Your task to perform on an android device: find which apps use the phone's location Image 0: 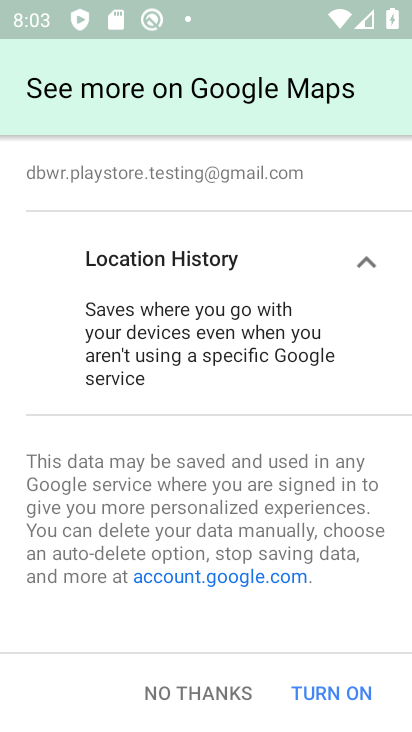
Step 0: click (376, 565)
Your task to perform on an android device: find which apps use the phone's location Image 1: 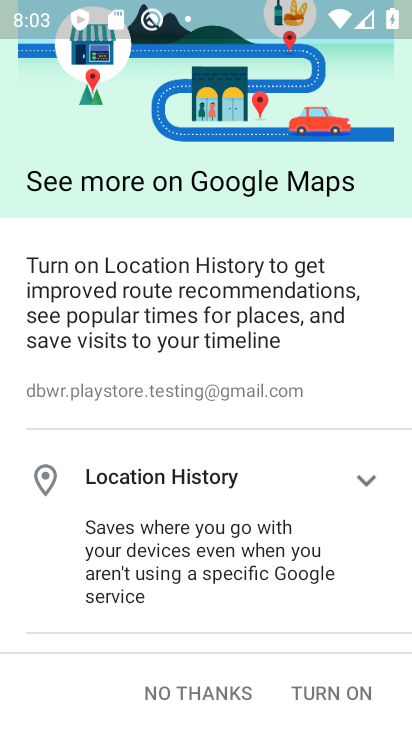
Step 1: press home button
Your task to perform on an android device: find which apps use the phone's location Image 2: 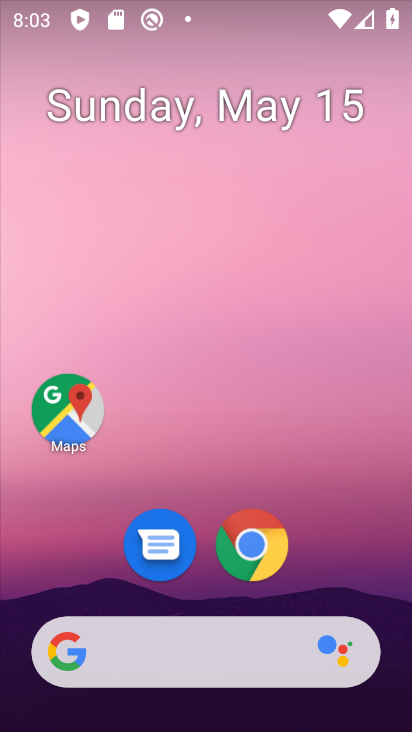
Step 2: drag from (373, 560) to (375, 94)
Your task to perform on an android device: find which apps use the phone's location Image 3: 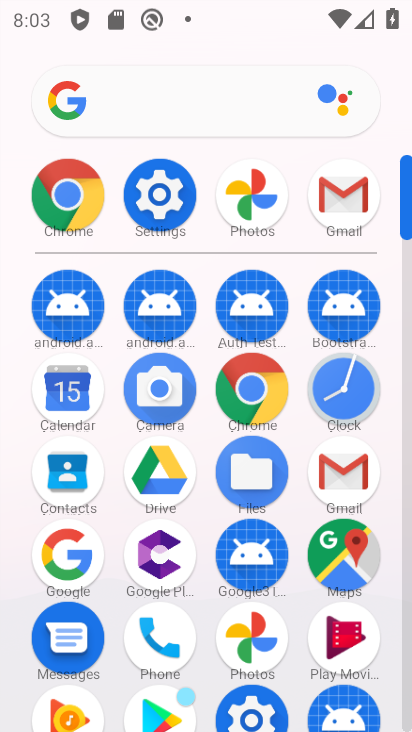
Step 3: click (176, 206)
Your task to perform on an android device: find which apps use the phone's location Image 4: 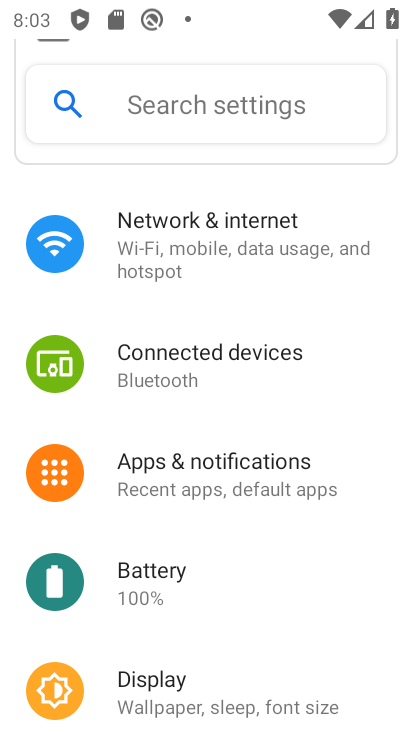
Step 4: drag from (362, 603) to (382, 393)
Your task to perform on an android device: find which apps use the phone's location Image 5: 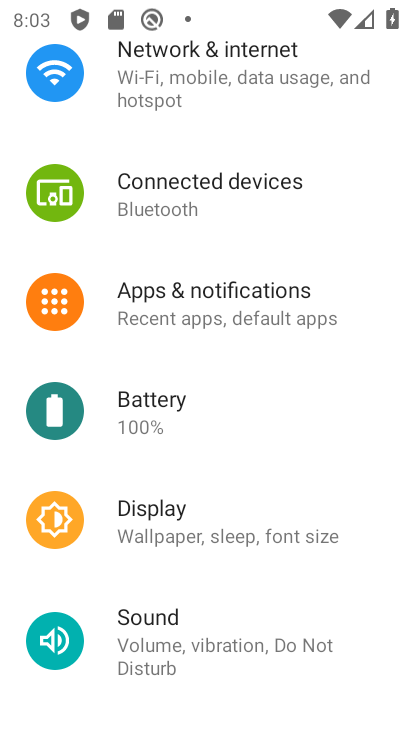
Step 5: drag from (360, 652) to (366, 447)
Your task to perform on an android device: find which apps use the phone's location Image 6: 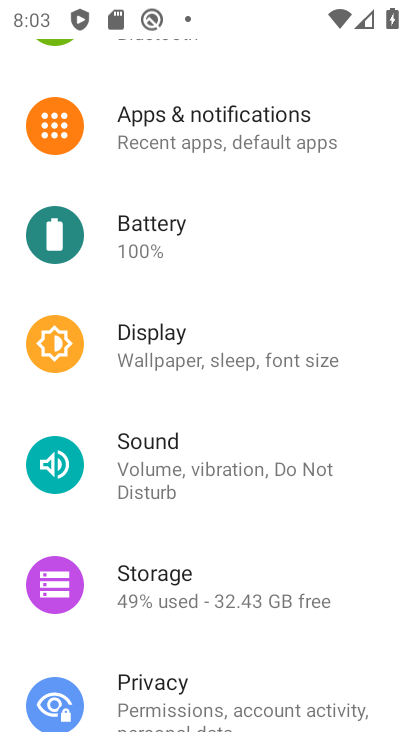
Step 6: drag from (363, 648) to (362, 419)
Your task to perform on an android device: find which apps use the phone's location Image 7: 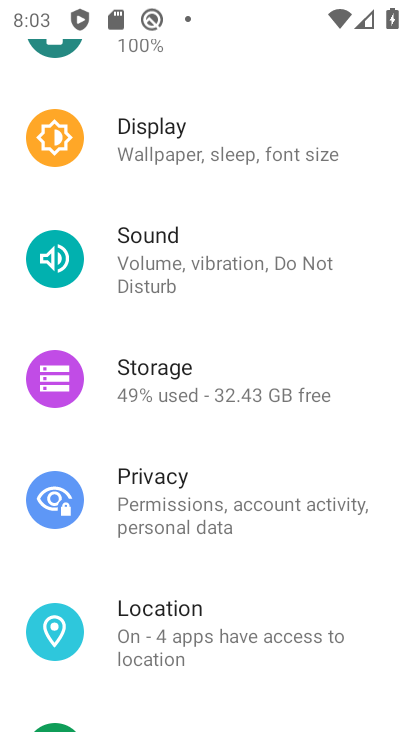
Step 7: drag from (364, 683) to (372, 420)
Your task to perform on an android device: find which apps use the phone's location Image 8: 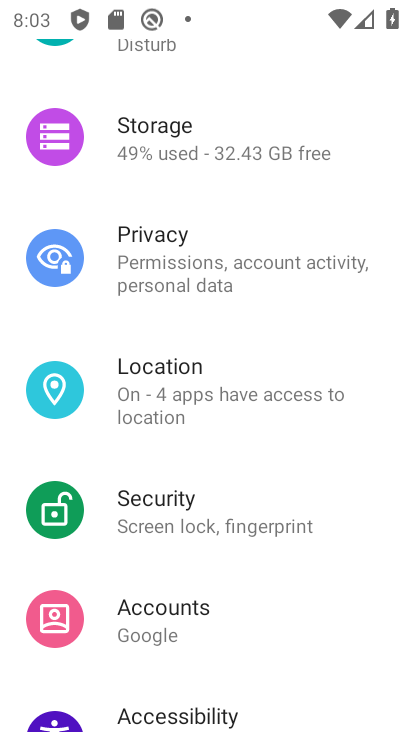
Step 8: drag from (345, 666) to (366, 405)
Your task to perform on an android device: find which apps use the phone's location Image 9: 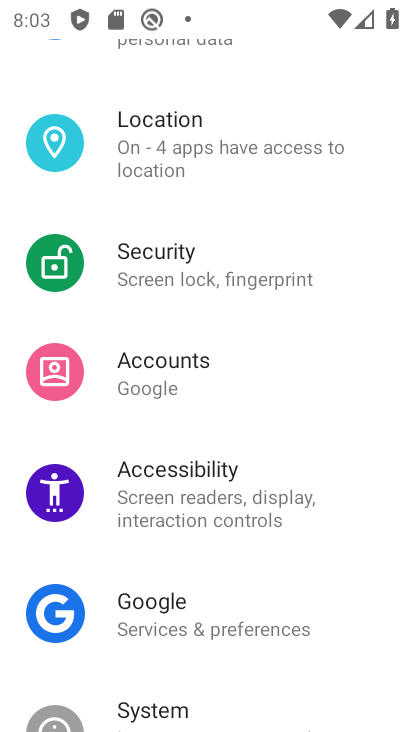
Step 9: drag from (355, 653) to (375, 424)
Your task to perform on an android device: find which apps use the phone's location Image 10: 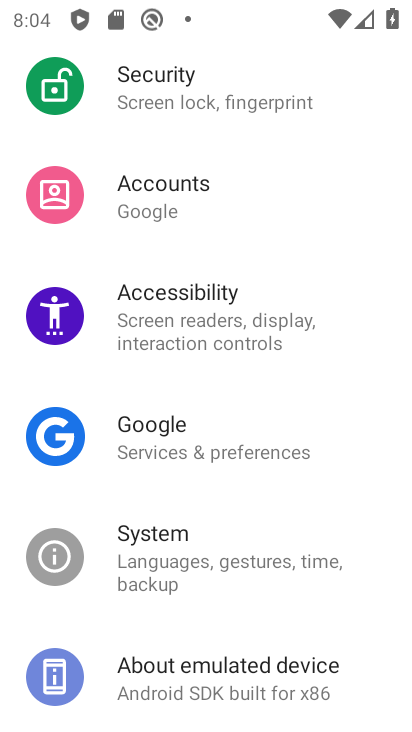
Step 10: drag from (369, 649) to (367, 396)
Your task to perform on an android device: find which apps use the phone's location Image 11: 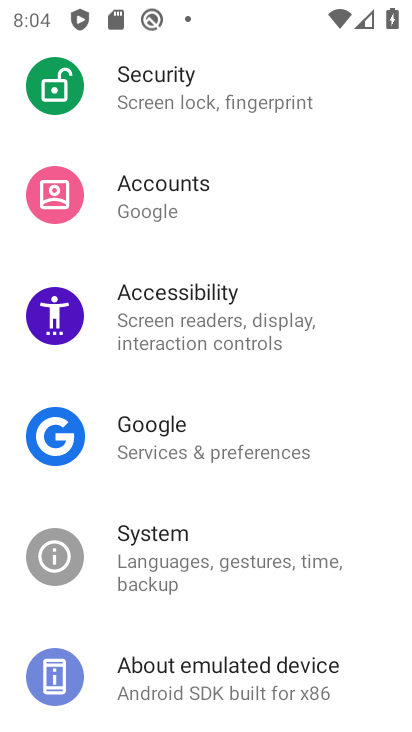
Step 11: drag from (374, 286) to (365, 537)
Your task to perform on an android device: find which apps use the phone's location Image 12: 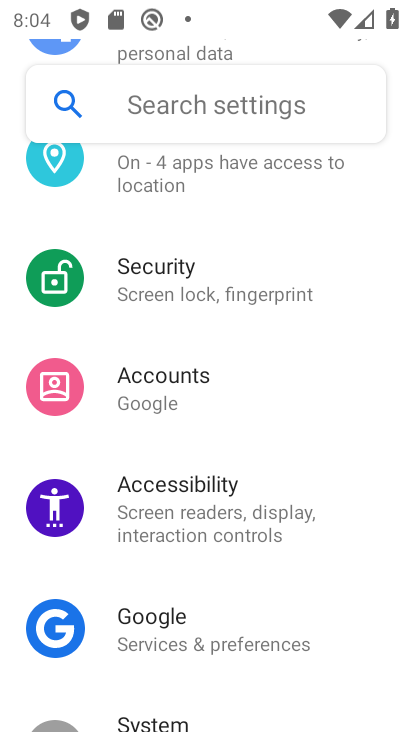
Step 12: drag from (360, 287) to (346, 494)
Your task to perform on an android device: find which apps use the phone's location Image 13: 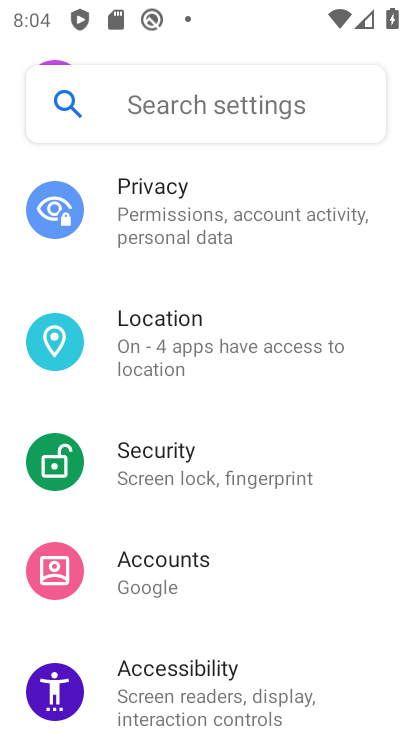
Step 13: click (240, 361)
Your task to perform on an android device: find which apps use the phone's location Image 14: 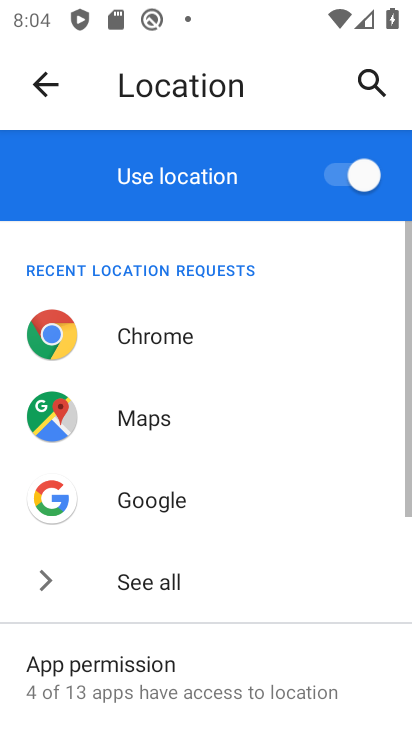
Step 14: click (197, 686)
Your task to perform on an android device: find which apps use the phone's location Image 15: 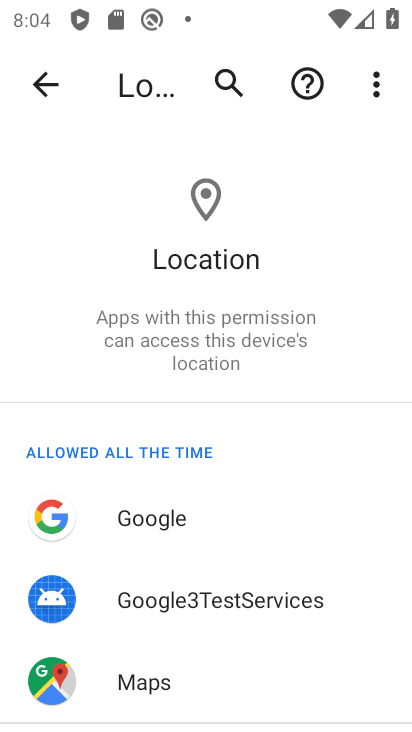
Step 15: drag from (347, 644) to (360, 393)
Your task to perform on an android device: find which apps use the phone's location Image 16: 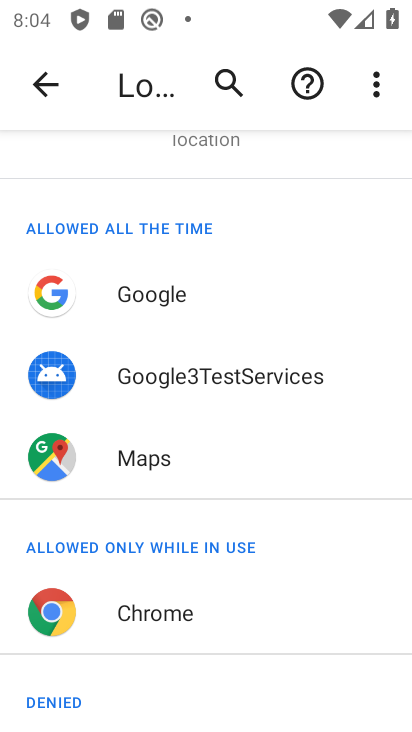
Step 16: drag from (315, 663) to (331, 459)
Your task to perform on an android device: find which apps use the phone's location Image 17: 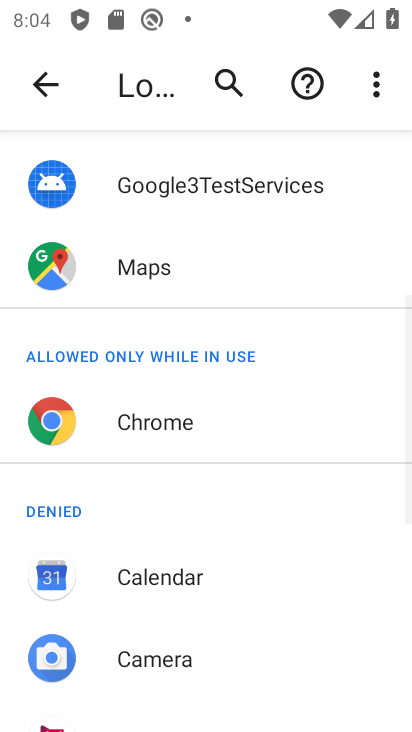
Step 17: drag from (328, 550) to (325, 431)
Your task to perform on an android device: find which apps use the phone's location Image 18: 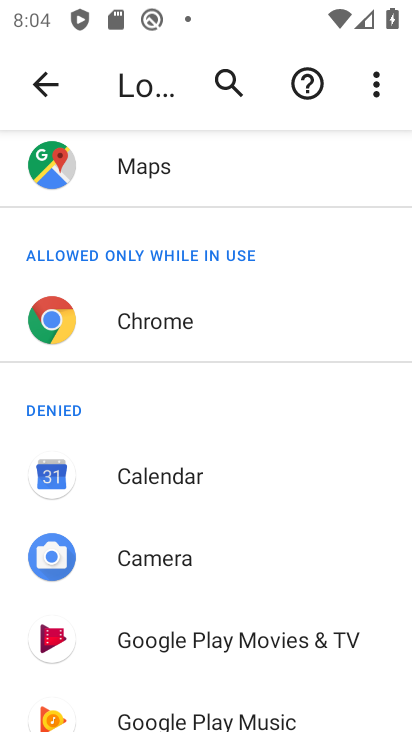
Step 18: drag from (325, 658) to (336, 474)
Your task to perform on an android device: find which apps use the phone's location Image 19: 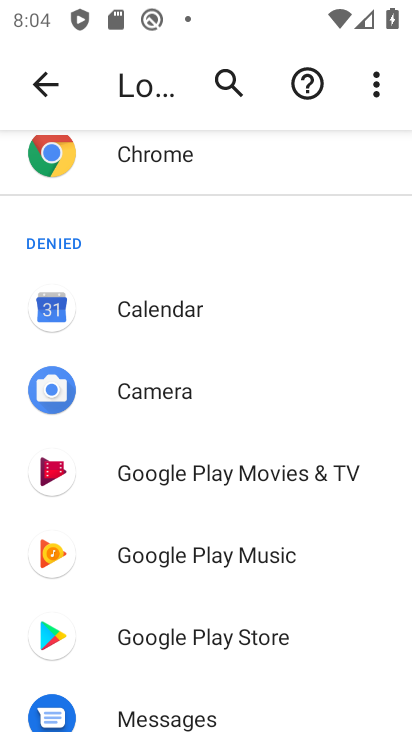
Step 19: drag from (342, 679) to (334, 494)
Your task to perform on an android device: find which apps use the phone's location Image 20: 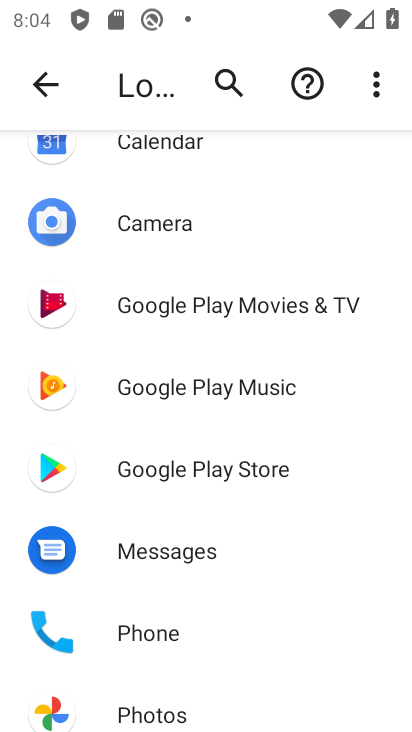
Step 20: drag from (322, 676) to (329, 518)
Your task to perform on an android device: find which apps use the phone's location Image 21: 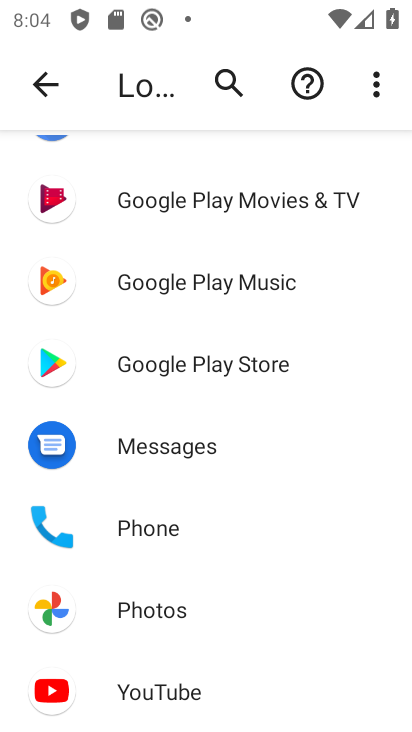
Step 21: click (181, 618)
Your task to perform on an android device: find which apps use the phone's location Image 22: 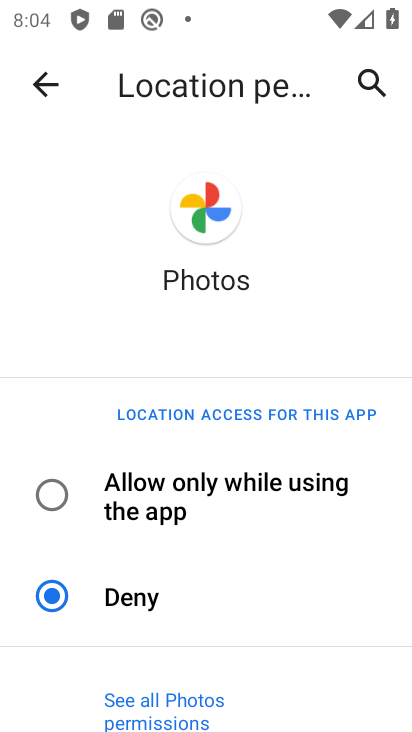
Step 22: click (35, 489)
Your task to perform on an android device: find which apps use the phone's location Image 23: 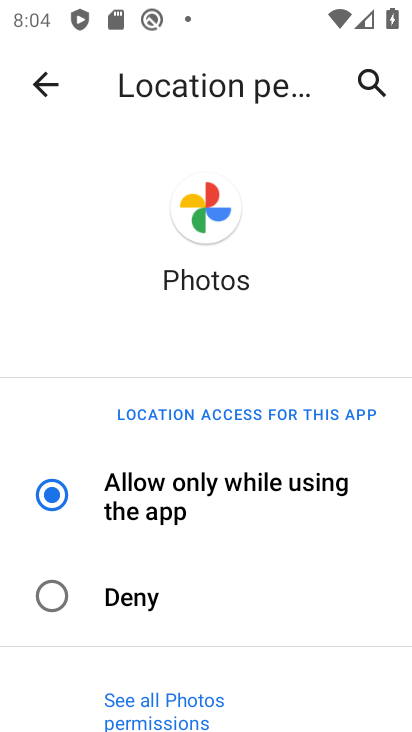
Step 23: task complete